Your task to perform on an android device: see sites visited before in the chrome app Image 0: 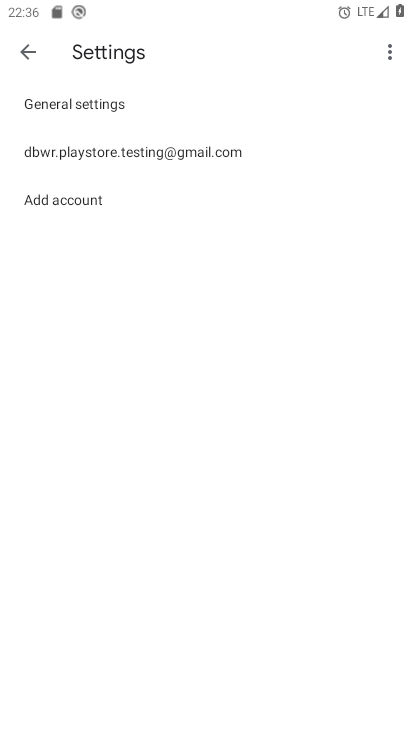
Step 0: press home button
Your task to perform on an android device: see sites visited before in the chrome app Image 1: 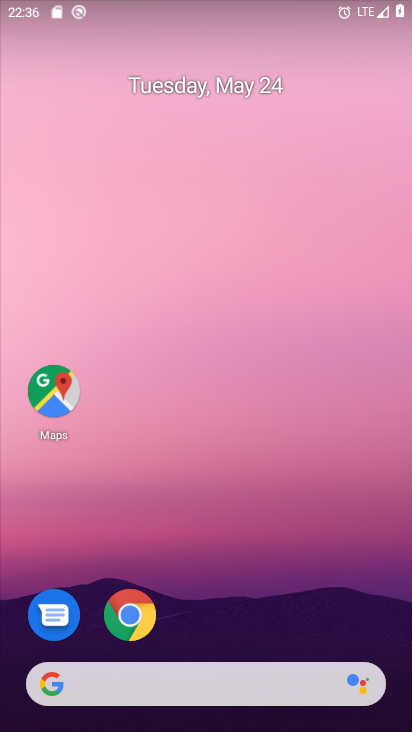
Step 1: click (121, 604)
Your task to perform on an android device: see sites visited before in the chrome app Image 2: 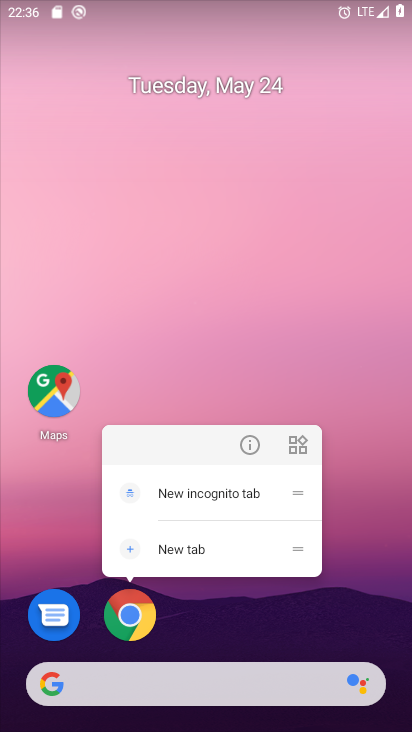
Step 2: click (115, 613)
Your task to perform on an android device: see sites visited before in the chrome app Image 3: 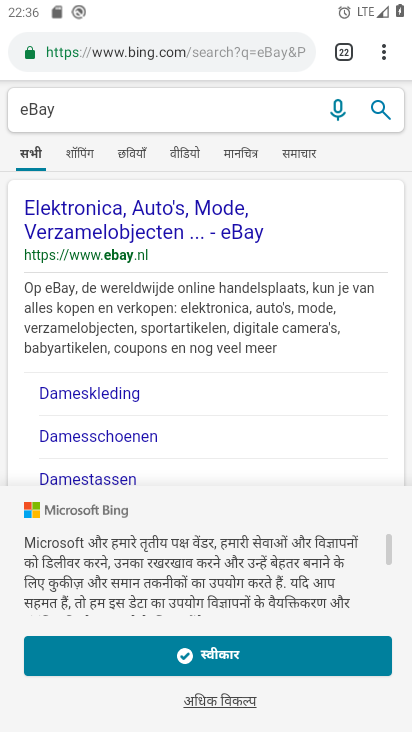
Step 3: click (379, 53)
Your task to perform on an android device: see sites visited before in the chrome app Image 4: 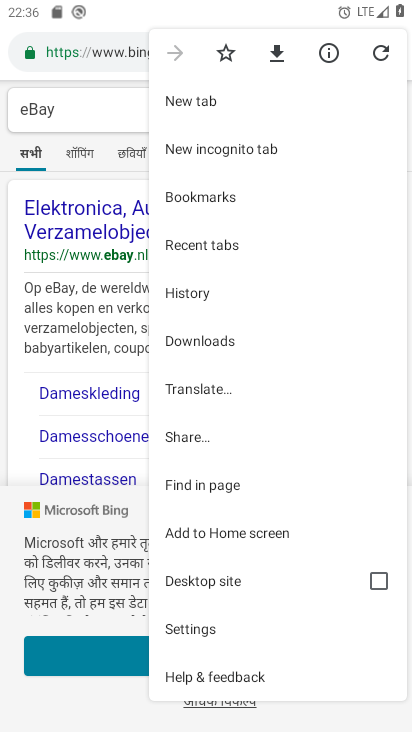
Step 4: click (200, 295)
Your task to perform on an android device: see sites visited before in the chrome app Image 5: 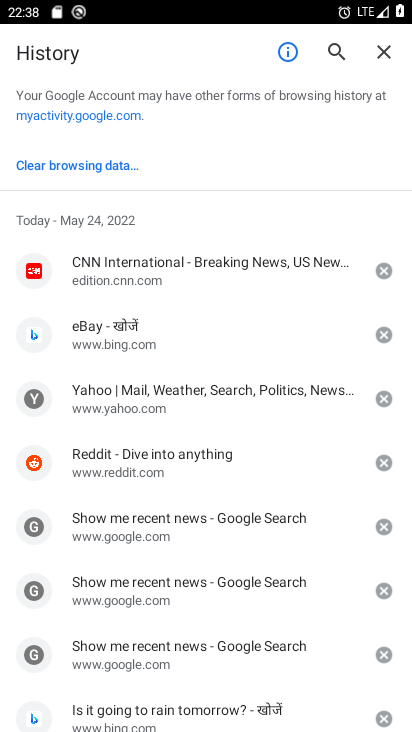
Step 5: task complete